Your task to perform on an android device: check storage Image 0: 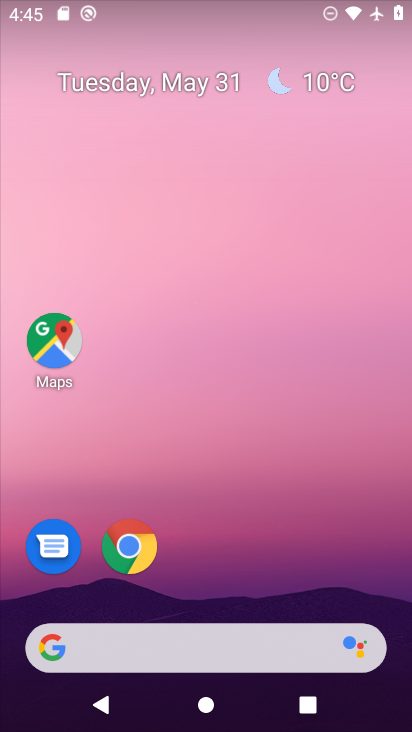
Step 0: drag from (333, 535) to (156, 34)
Your task to perform on an android device: check storage Image 1: 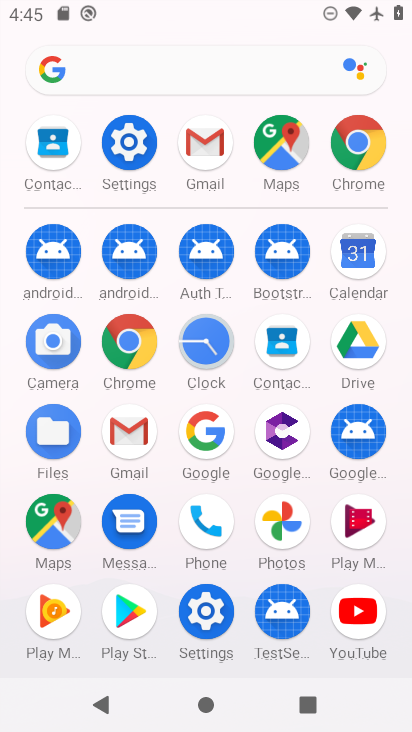
Step 1: click (134, 165)
Your task to perform on an android device: check storage Image 2: 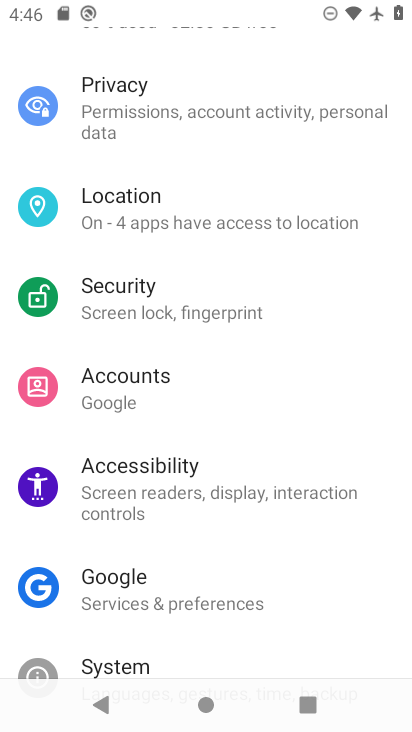
Step 2: drag from (223, 255) to (235, 700)
Your task to perform on an android device: check storage Image 3: 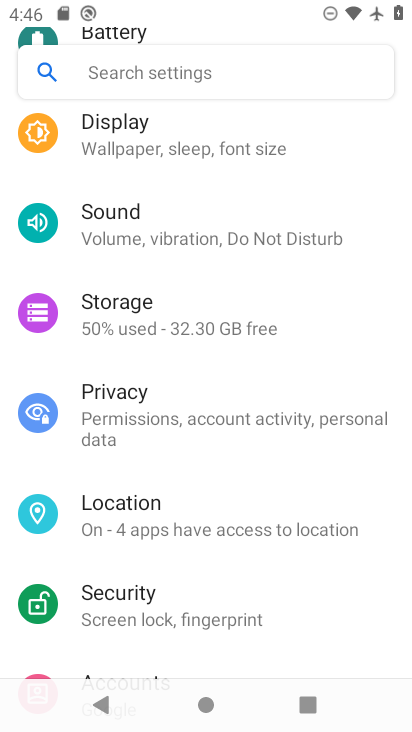
Step 3: click (181, 317)
Your task to perform on an android device: check storage Image 4: 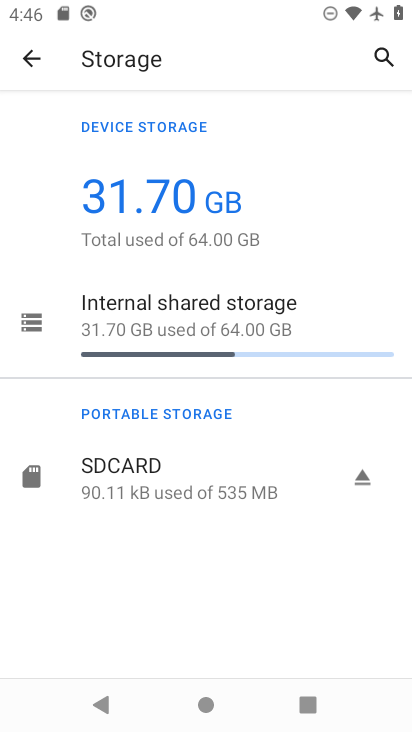
Step 4: task complete